Your task to perform on an android device: Open maps Image 0: 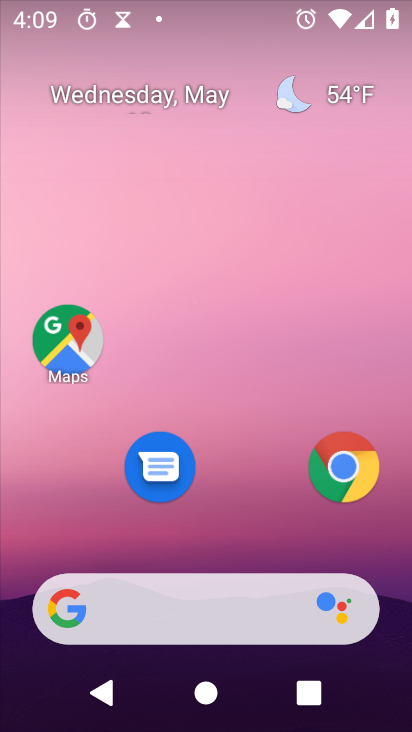
Step 0: click (84, 335)
Your task to perform on an android device: Open maps Image 1: 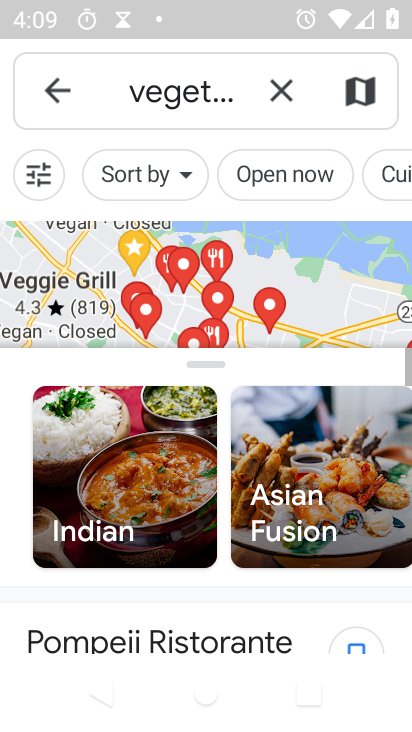
Step 1: task complete